Your task to perform on an android device: Open the Play Movies app and select the watchlist tab. Image 0: 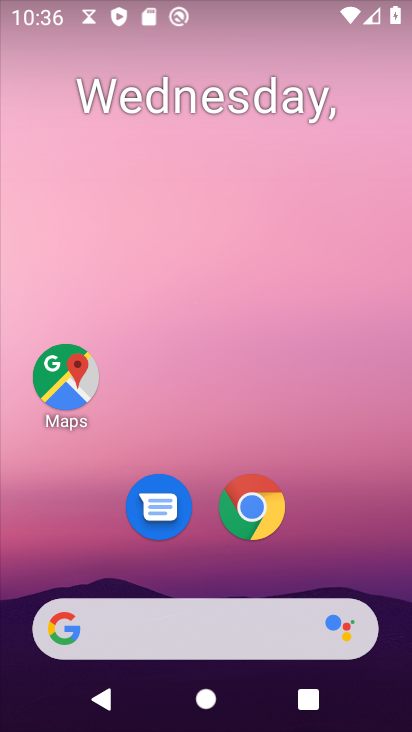
Step 0: drag from (284, 662) to (289, 128)
Your task to perform on an android device: Open the Play Movies app and select the watchlist tab. Image 1: 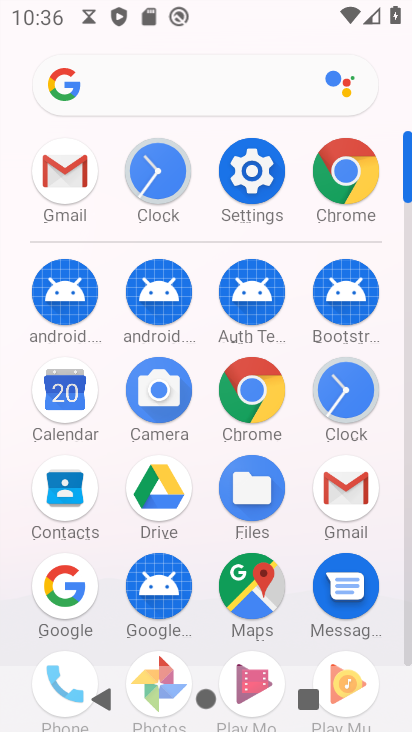
Step 1: drag from (207, 545) to (186, 395)
Your task to perform on an android device: Open the Play Movies app and select the watchlist tab. Image 2: 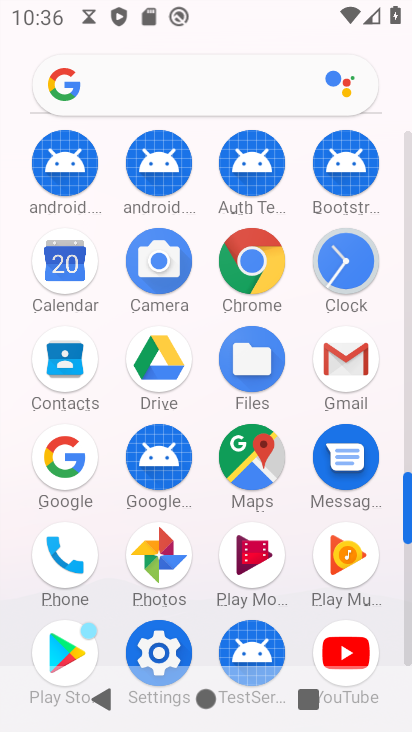
Step 2: click (250, 550)
Your task to perform on an android device: Open the Play Movies app and select the watchlist tab. Image 3: 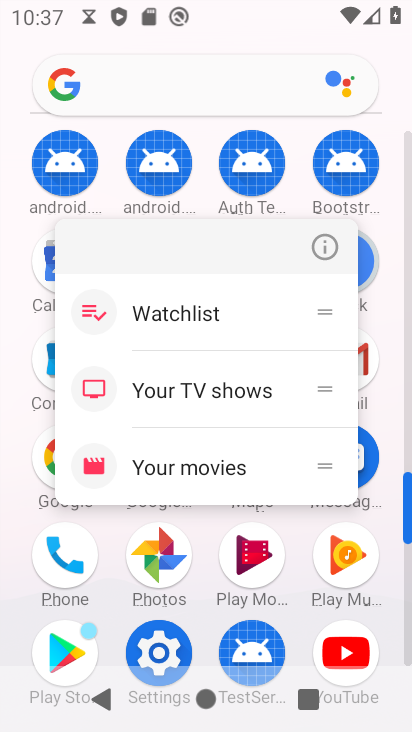
Step 3: click (254, 545)
Your task to perform on an android device: Open the Play Movies app and select the watchlist tab. Image 4: 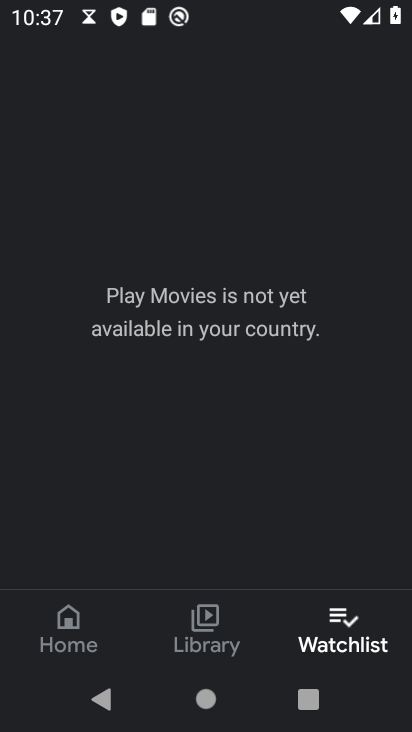
Step 4: task complete